Your task to perform on an android device: Open notification settings Image 0: 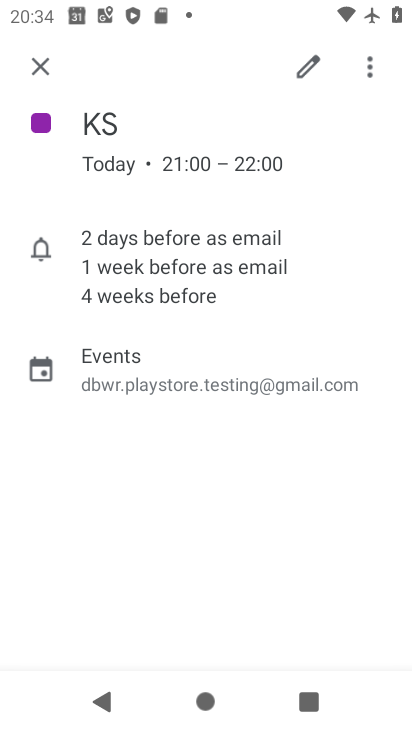
Step 0: press home button
Your task to perform on an android device: Open notification settings Image 1: 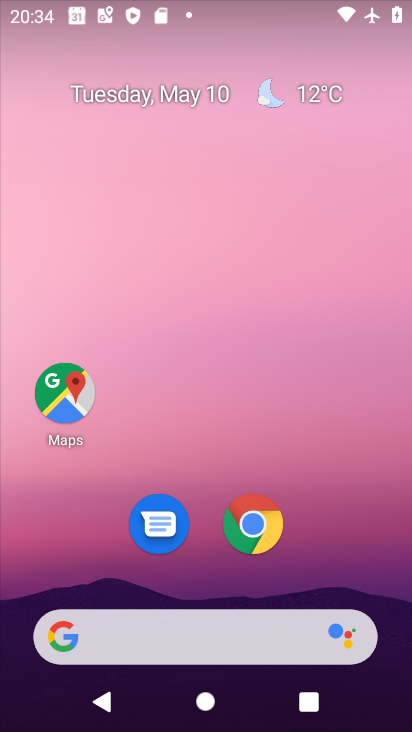
Step 1: drag from (328, 535) to (297, 54)
Your task to perform on an android device: Open notification settings Image 2: 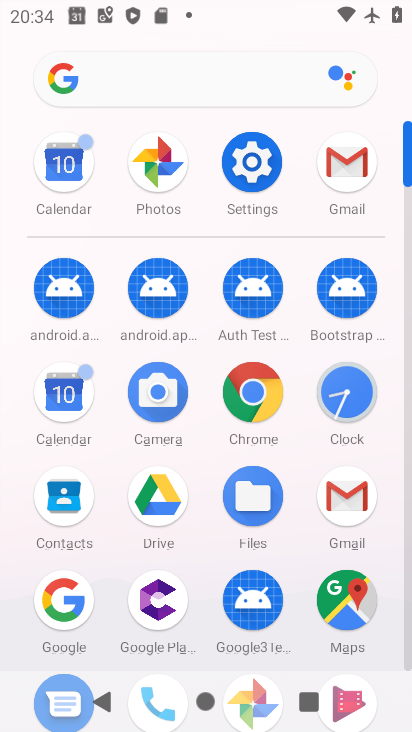
Step 2: click (258, 168)
Your task to perform on an android device: Open notification settings Image 3: 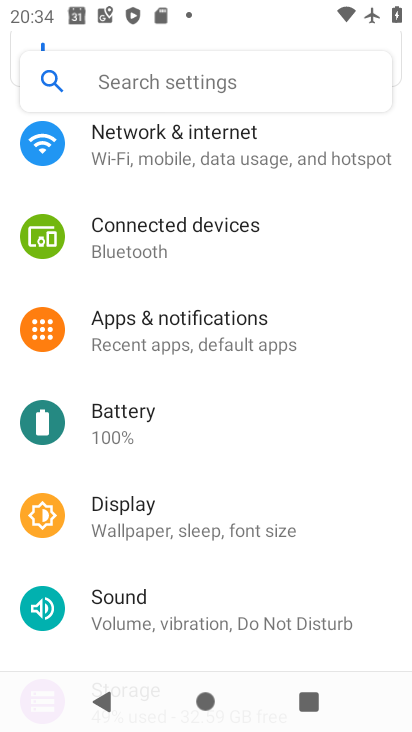
Step 3: click (229, 328)
Your task to perform on an android device: Open notification settings Image 4: 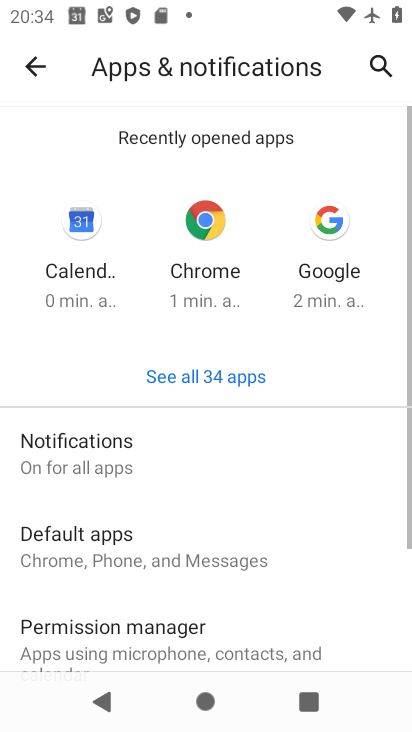
Step 4: click (106, 452)
Your task to perform on an android device: Open notification settings Image 5: 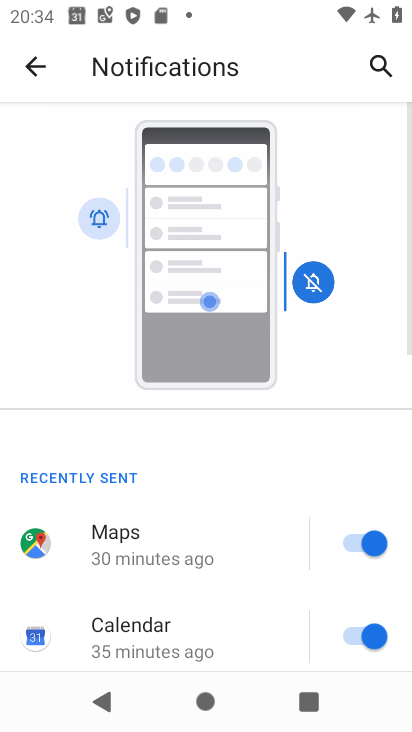
Step 5: task complete